Your task to perform on an android device: toggle priority inbox in the gmail app Image 0: 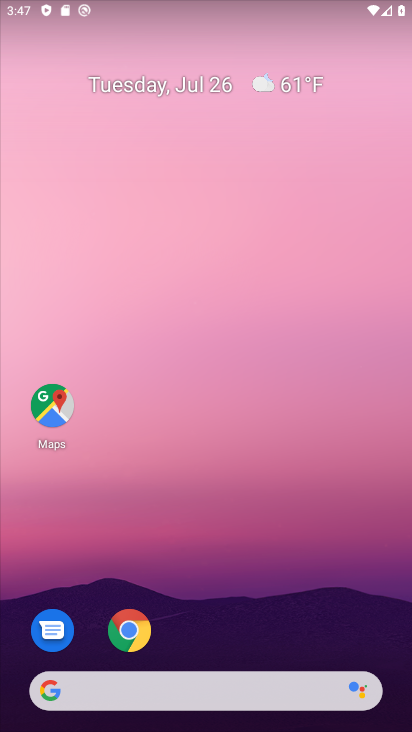
Step 0: click (246, 158)
Your task to perform on an android device: toggle priority inbox in the gmail app Image 1: 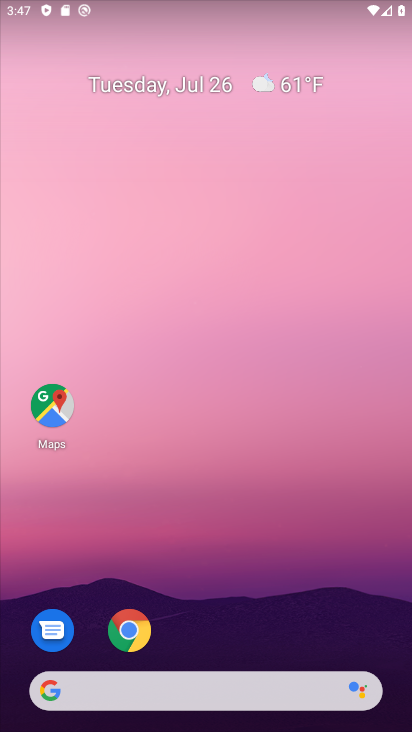
Step 1: drag from (213, 582) to (242, 31)
Your task to perform on an android device: toggle priority inbox in the gmail app Image 2: 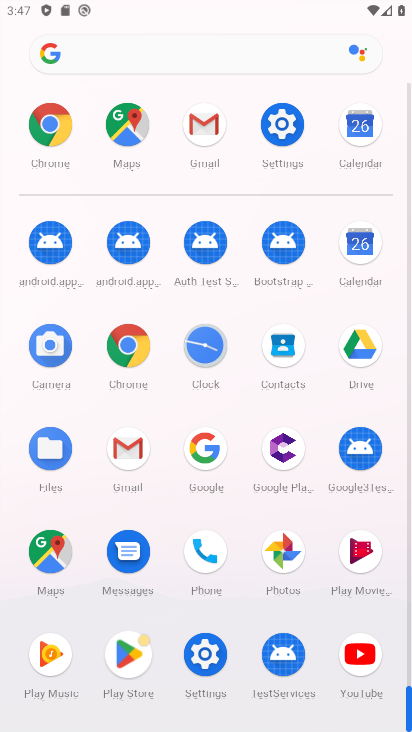
Step 2: drag from (151, 619) to (155, 163)
Your task to perform on an android device: toggle priority inbox in the gmail app Image 3: 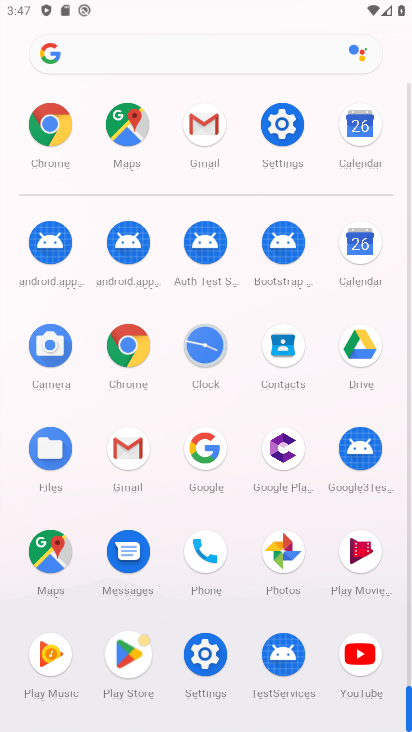
Step 3: click (115, 448)
Your task to perform on an android device: toggle priority inbox in the gmail app Image 4: 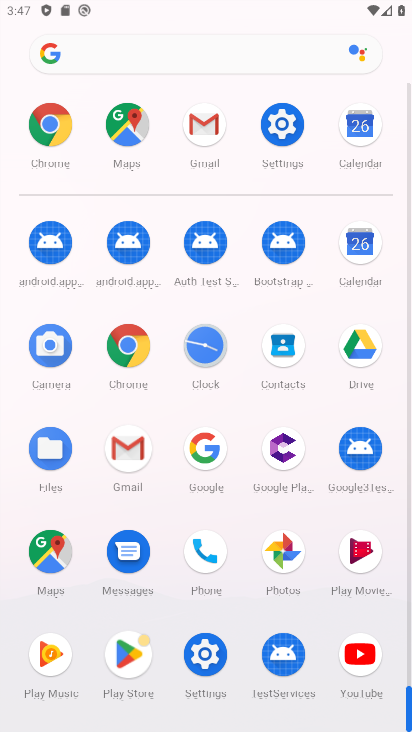
Step 4: click (114, 448)
Your task to perform on an android device: toggle priority inbox in the gmail app Image 5: 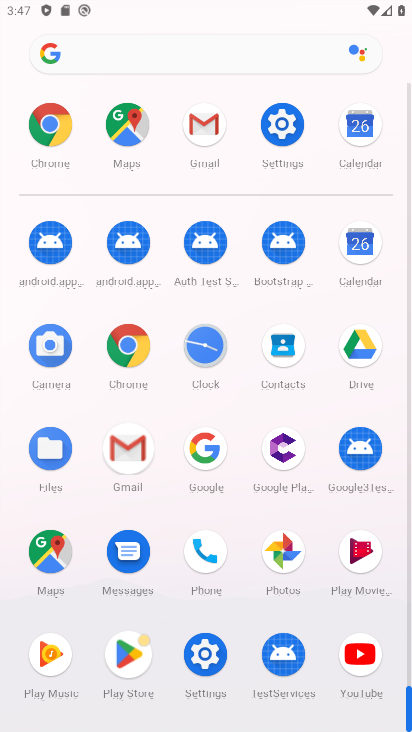
Step 5: click (120, 446)
Your task to perform on an android device: toggle priority inbox in the gmail app Image 6: 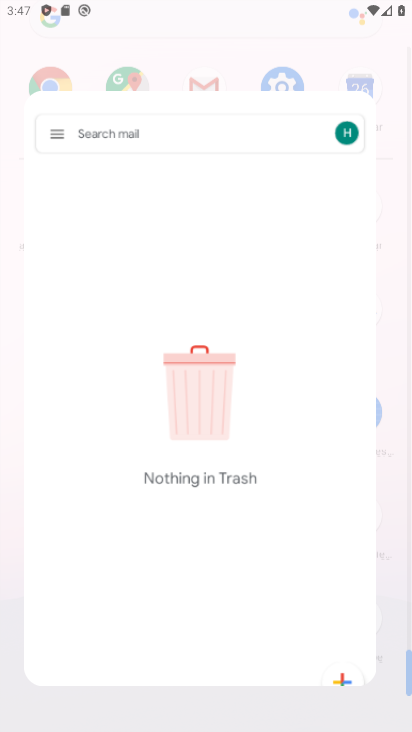
Step 6: click (132, 433)
Your task to perform on an android device: toggle priority inbox in the gmail app Image 7: 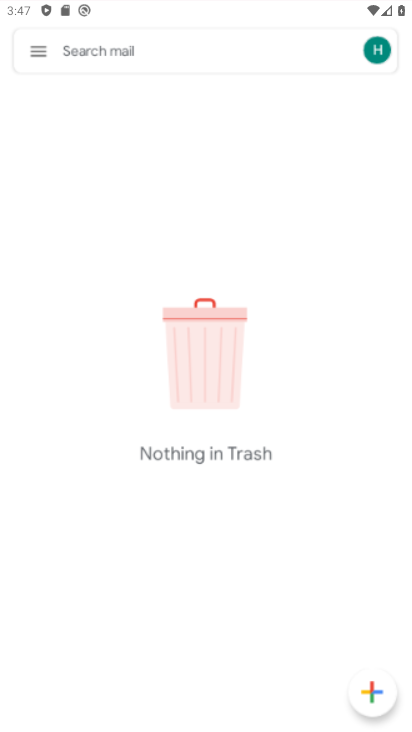
Step 7: click (132, 433)
Your task to perform on an android device: toggle priority inbox in the gmail app Image 8: 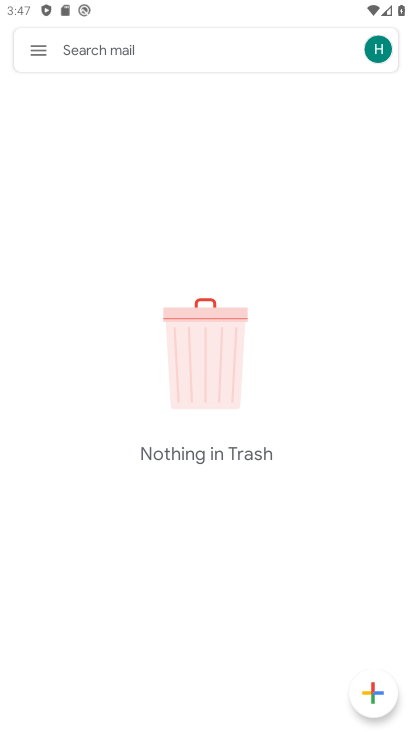
Step 8: click (131, 432)
Your task to perform on an android device: toggle priority inbox in the gmail app Image 9: 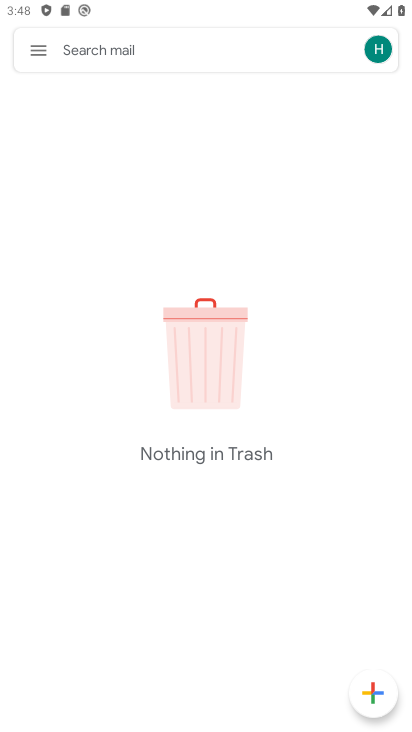
Step 9: click (39, 54)
Your task to perform on an android device: toggle priority inbox in the gmail app Image 10: 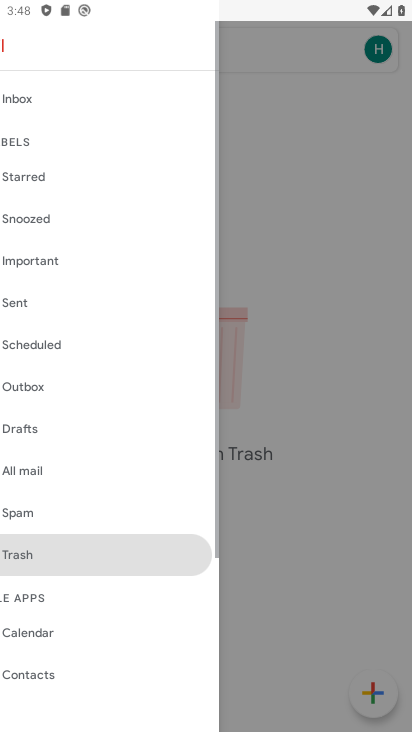
Step 10: click (38, 52)
Your task to perform on an android device: toggle priority inbox in the gmail app Image 11: 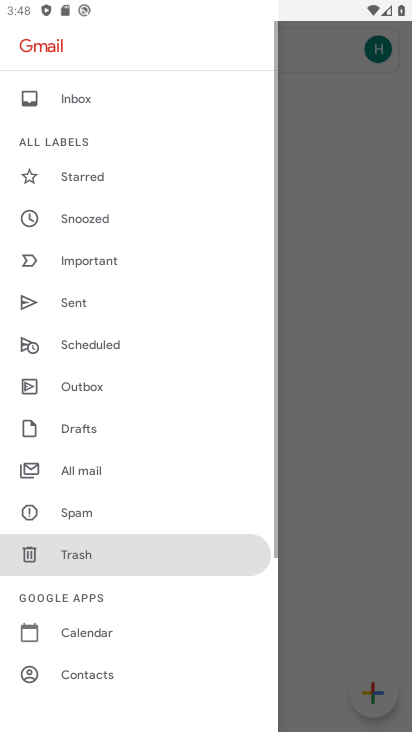
Step 11: click (38, 52)
Your task to perform on an android device: toggle priority inbox in the gmail app Image 12: 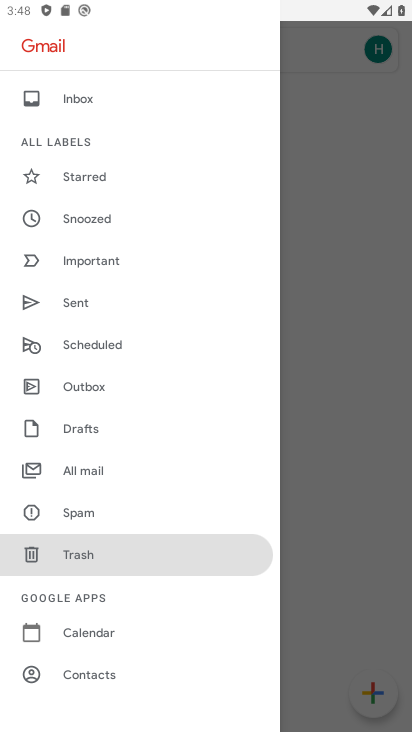
Step 12: click (86, 557)
Your task to perform on an android device: toggle priority inbox in the gmail app Image 13: 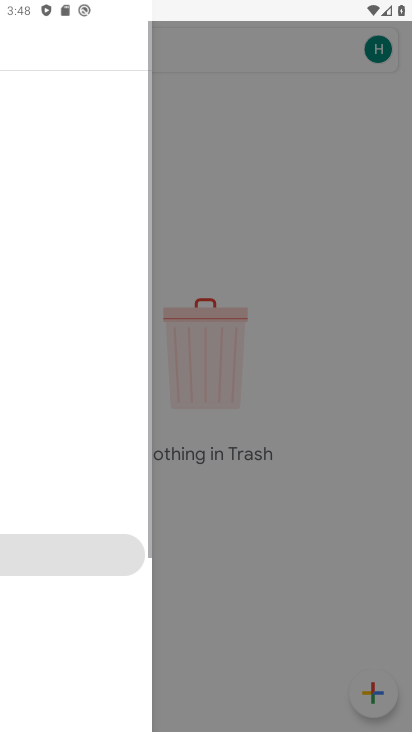
Step 13: click (85, 556)
Your task to perform on an android device: toggle priority inbox in the gmail app Image 14: 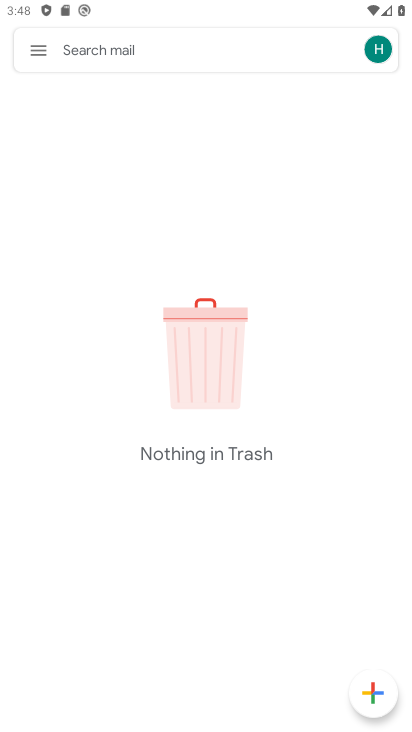
Step 14: click (85, 552)
Your task to perform on an android device: toggle priority inbox in the gmail app Image 15: 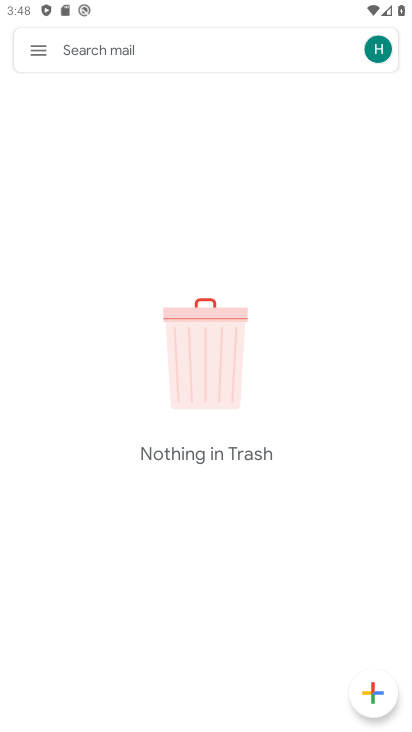
Step 15: click (90, 548)
Your task to perform on an android device: toggle priority inbox in the gmail app Image 16: 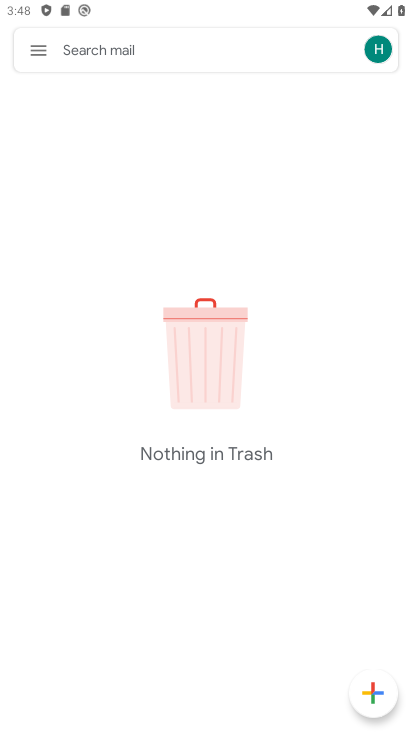
Step 16: click (36, 53)
Your task to perform on an android device: toggle priority inbox in the gmail app Image 17: 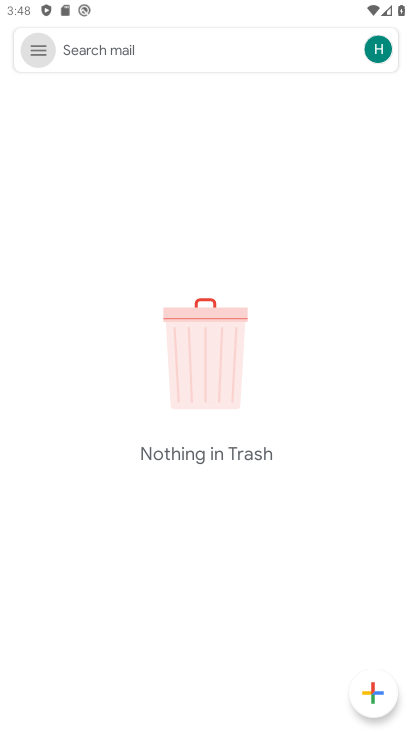
Step 17: click (34, 44)
Your task to perform on an android device: toggle priority inbox in the gmail app Image 18: 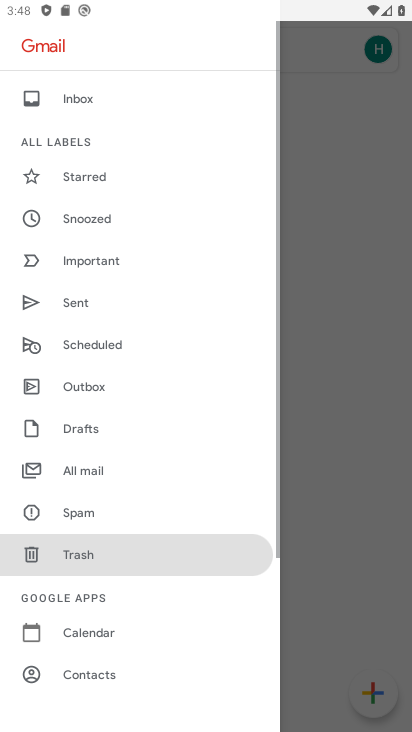
Step 18: drag from (94, 563) to (79, 145)
Your task to perform on an android device: toggle priority inbox in the gmail app Image 19: 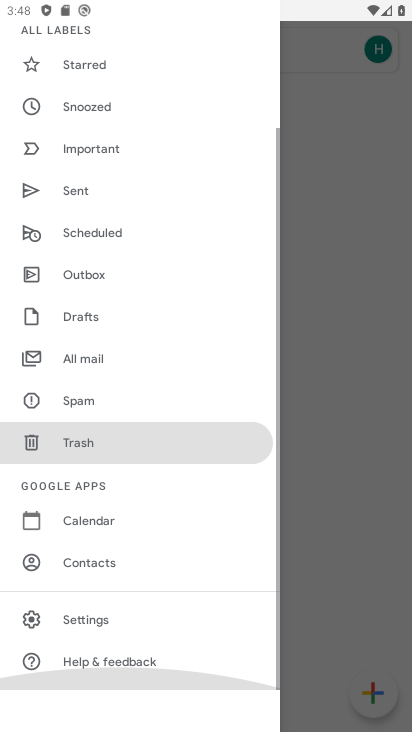
Step 19: drag from (64, 481) to (97, 97)
Your task to perform on an android device: toggle priority inbox in the gmail app Image 20: 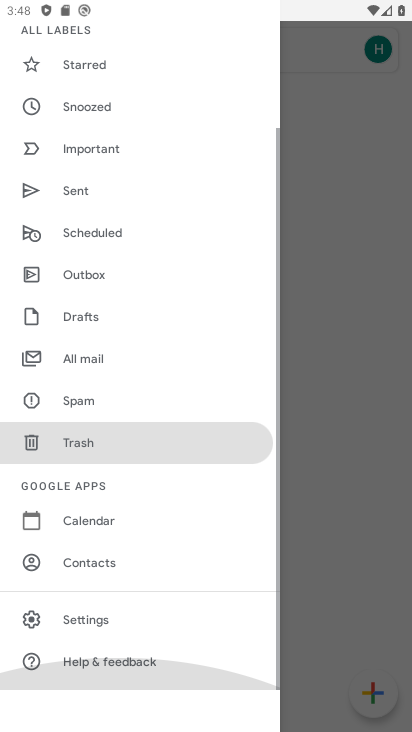
Step 20: drag from (96, 427) to (67, 142)
Your task to perform on an android device: toggle priority inbox in the gmail app Image 21: 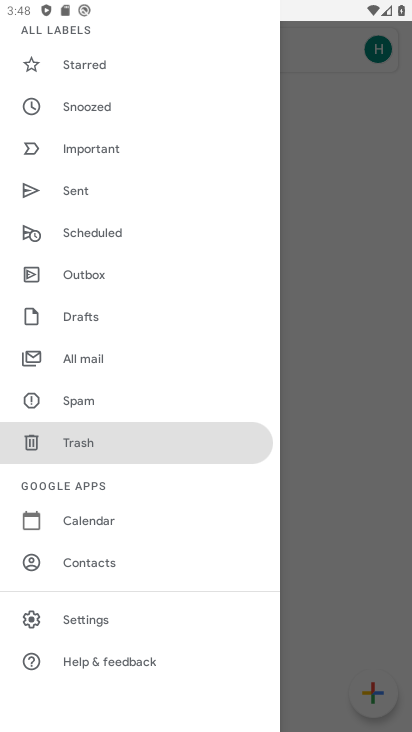
Step 21: click (81, 618)
Your task to perform on an android device: toggle priority inbox in the gmail app Image 22: 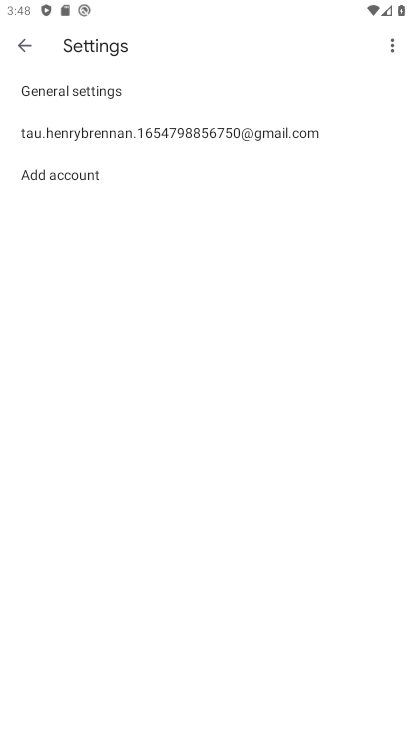
Step 22: click (71, 133)
Your task to perform on an android device: toggle priority inbox in the gmail app Image 23: 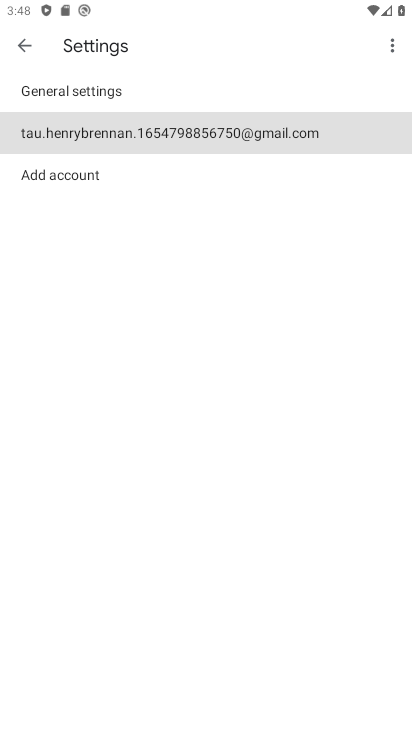
Step 23: click (72, 132)
Your task to perform on an android device: toggle priority inbox in the gmail app Image 24: 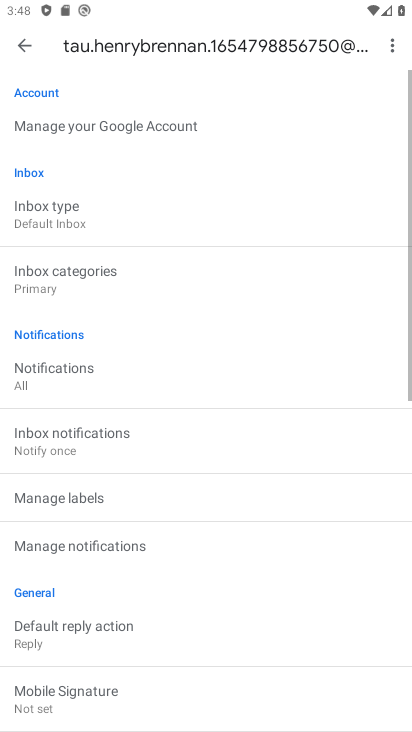
Step 24: click (72, 132)
Your task to perform on an android device: toggle priority inbox in the gmail app Image 25: 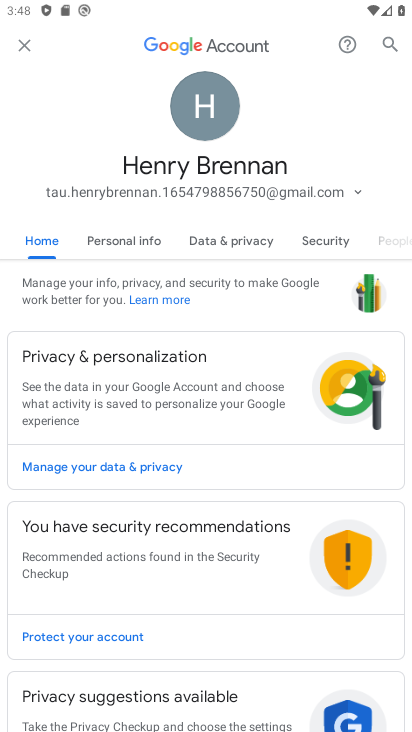
Step 25: click (20, 36)
Your task to perform on an android device: toggle priority inbox in the gmail app Image 26: 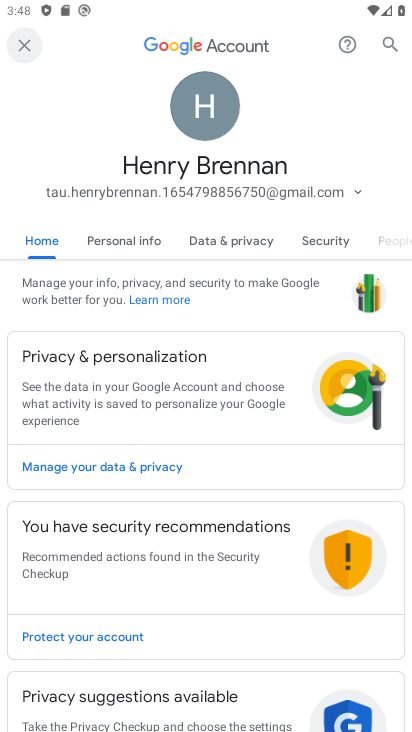
Step 26: click (23, 33)
Your task to perform on an android device: toggle priority inbox in the gmail app Image 27: 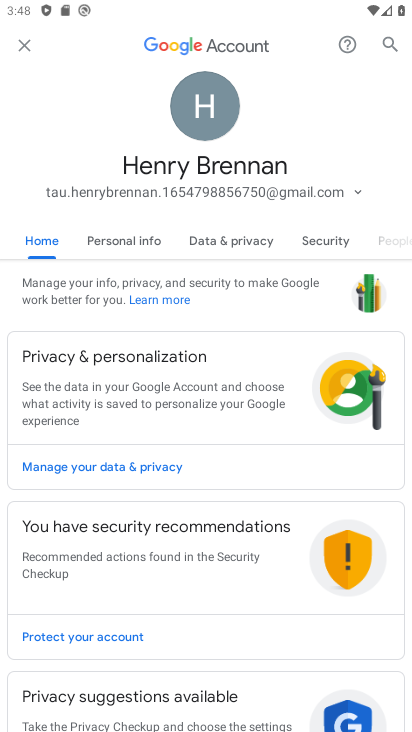
Step 27: click (27, 52)
Your task to perform on an android device: toggle priority inbox in the gmail app Image 28: 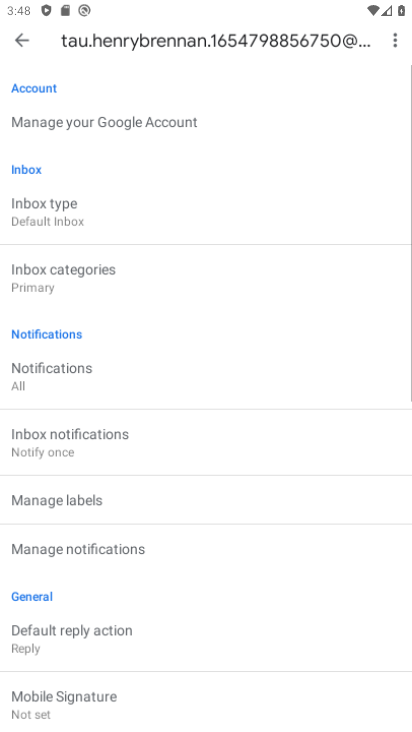
Step 28: click (22, 46)
Your task to perform on an android device: toggle priority inbox in the gmail app Image 29: 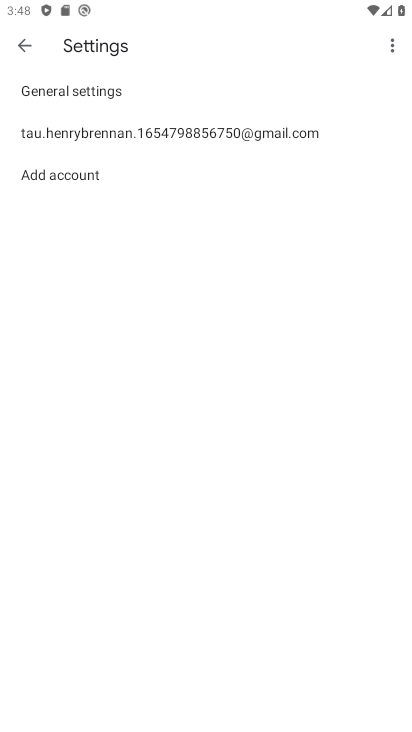
Step 29: click (21, 47)
Your task to perform on an android device: toggle priority inbox in the gmail app Image 30: 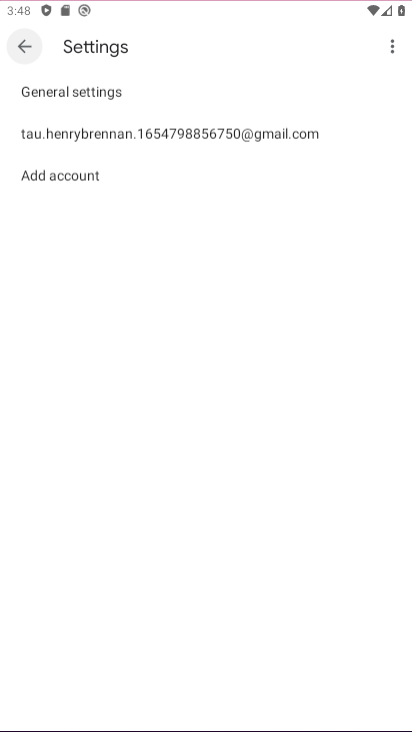
Step 30: click (21, 46)
Your task to perform on an android device: toggle priority inbox in the gmail app Image 31: 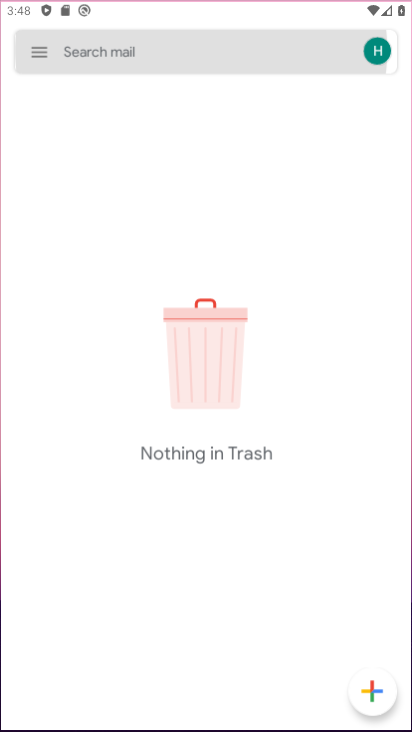
Step 31: click (21, 47)
Your task to perform on an android device: toggle priority inbox in the gmail app Image 32: 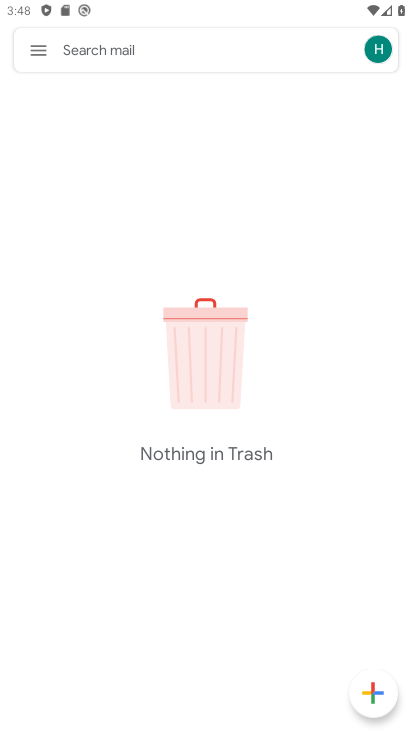
Step 32: press back button
Your task to perform on an android device: toggle priority inbox in the gmail app Image 33: 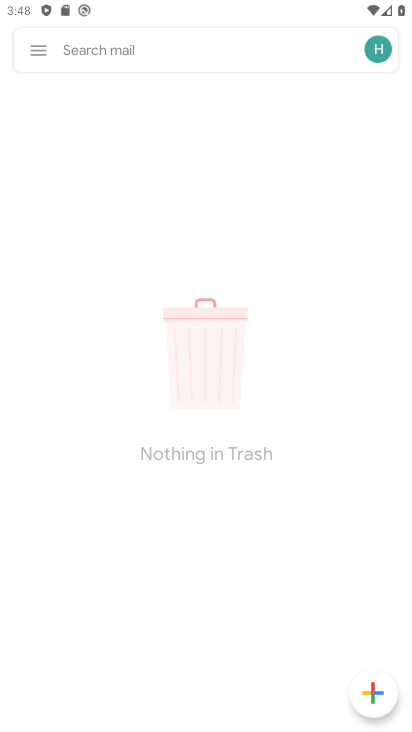
Step 33: press back button
Your task to perform on an android device: toggle priority inbox in the gmail app Image 34: 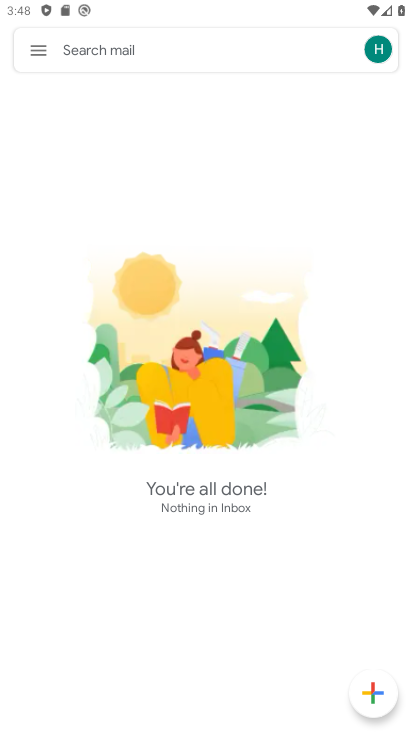
Step 34: press back button
Your task to perform on an android device: toggle priority inbox in the gmail app Image 35: 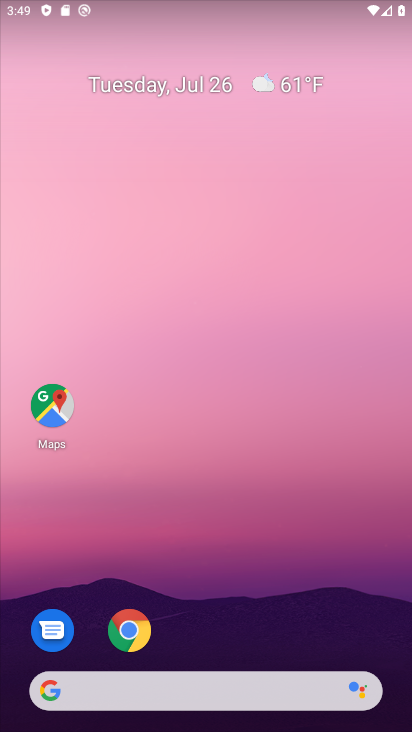
Step 35: drag from (274, 684) to (234, 35)
Your task to perform on an android device: toggle priority inbox in the gmail app Image 36: 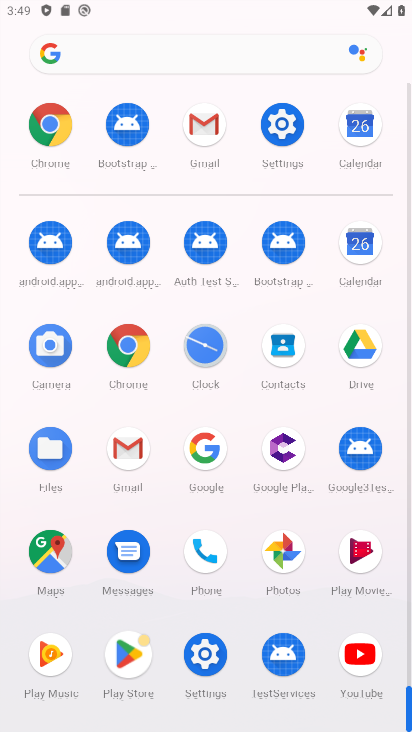
Step 36: drag from (241, 423) to (262, 49)
Your task to perform on an android device: toggle priority inbox in the gmail app Image 37: 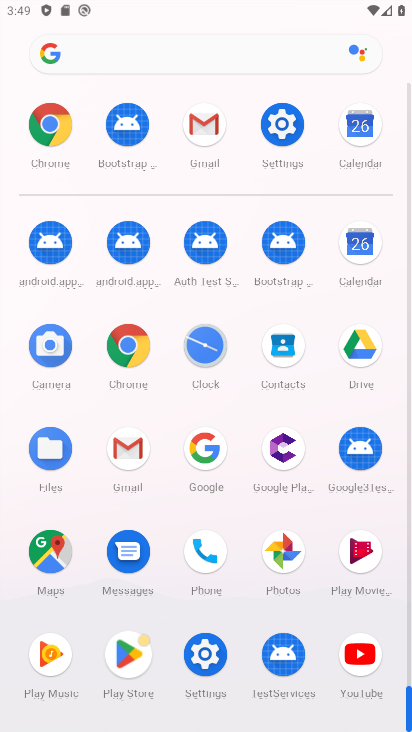
Step 37: click (107, 443)
Your task to perform on an android device: toggle priority inbox in the gmail app Image 38: 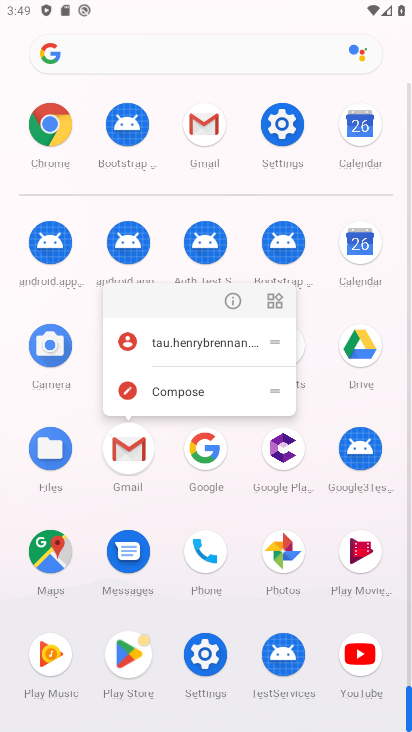
Step 38: click (124, 449)
Your task to perform on an android device: toggle priority inbox in the gmail app Image 39: 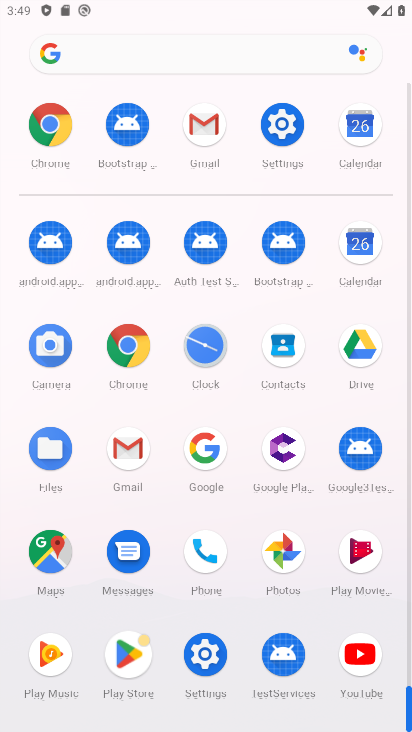
Step 39: click (125, 449)
Your task to perform on an android device: toggle priority inbox in the gmail app Image 40: 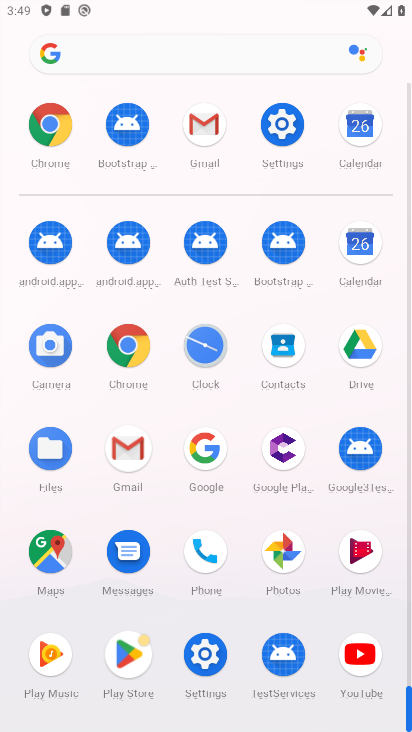
Step 40: click (125, 449)
Your task to perform on an android device: toggle priority inbox in the gmail app Image 41: 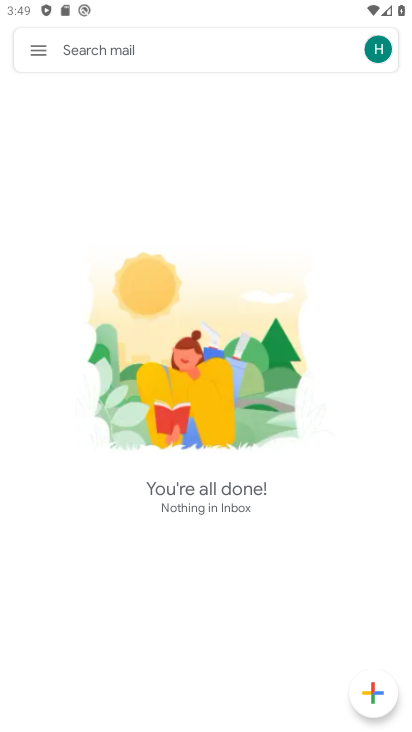
Step 41: click (39, 57)
Your task to perform on an android device: toggle priority inbox in the gmail app Image 42: 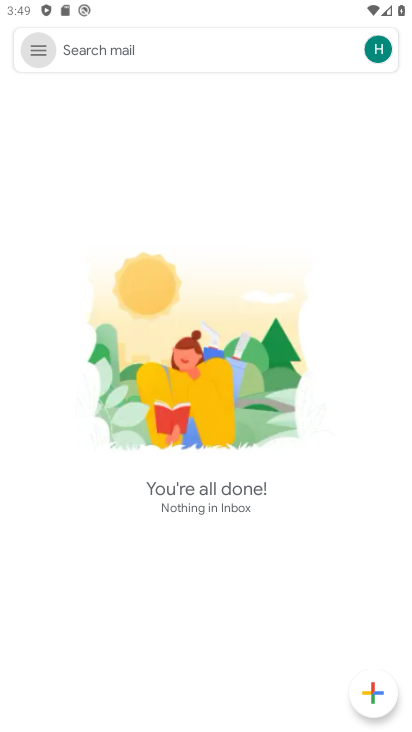
Step 42: click (40, 56)
Your task to perform on an android device: toggle priority inbox in the gmail app Image 43: 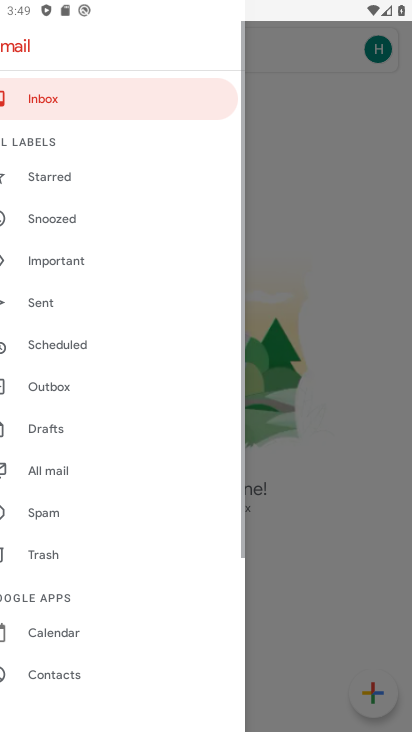
Step 43: click (41, 57)
Your task to perform on an android device: toggle priority inbox in the gmail app Image 44: 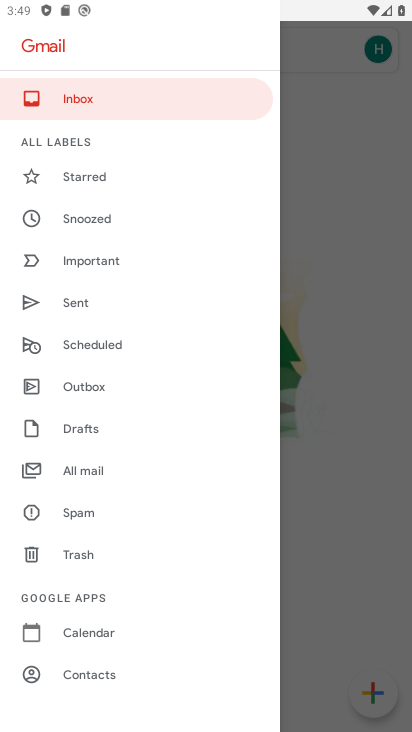
Step 44: drag from (124, 495) to (116, 142)
Your task to perform on an android device: toggle priority inbox in the gmail app Image 45: 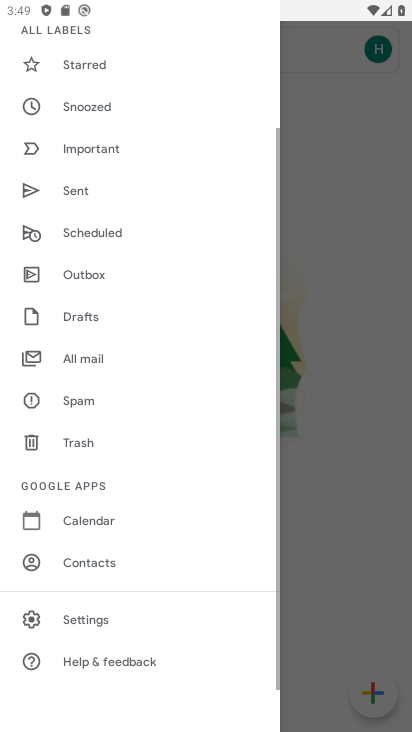
Step 45: drag from (88, 532) to (72, 231)
Your task to perform on an android device: toggle priority inbox in the gmail app Image 46: 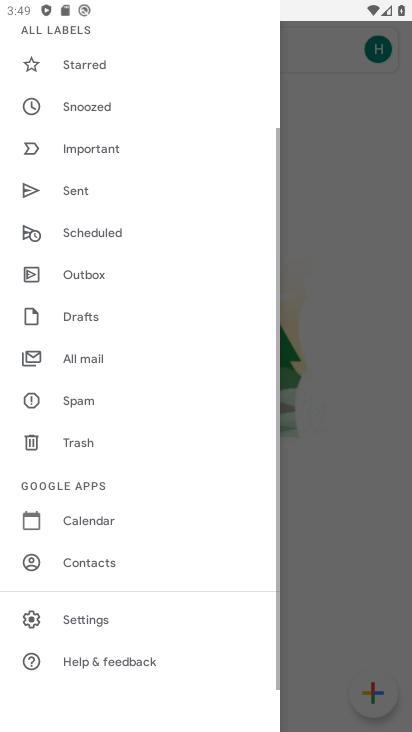
Step 46: click (83, 619)
Your task to perform on an android device: toggle priority inbox in the gmail app Image 47: 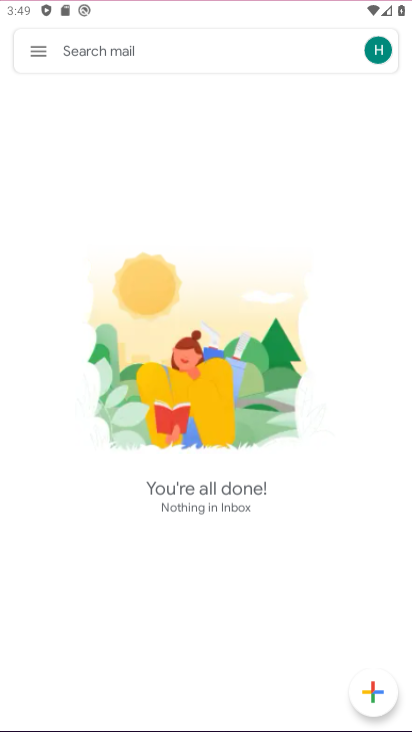
Step 47: click (85, 617)
Your task to perform on an android device: toggle priority inbox in the gmail app Image 48: 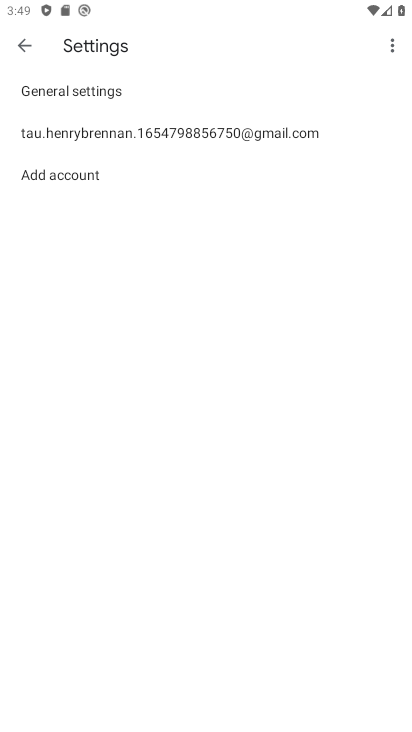
Step 48: click (93, 127)
Your task to perform on an android device: toggle priority inbox in the gmail app Image 49: 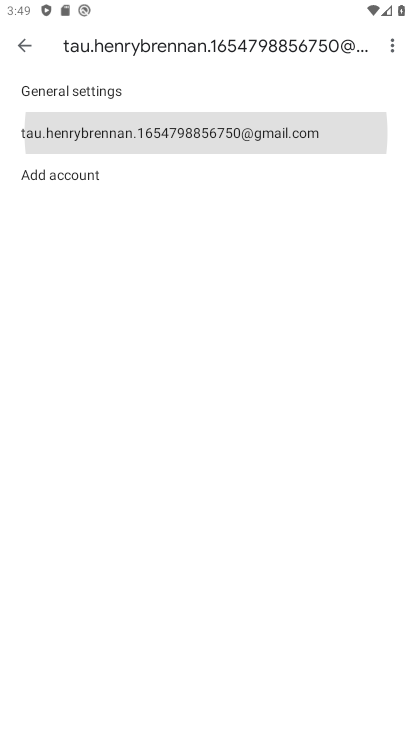
Step 49: click (95, 128)
Your task to perform on an android device: toggle priority inbox in the gmail app Image 50: 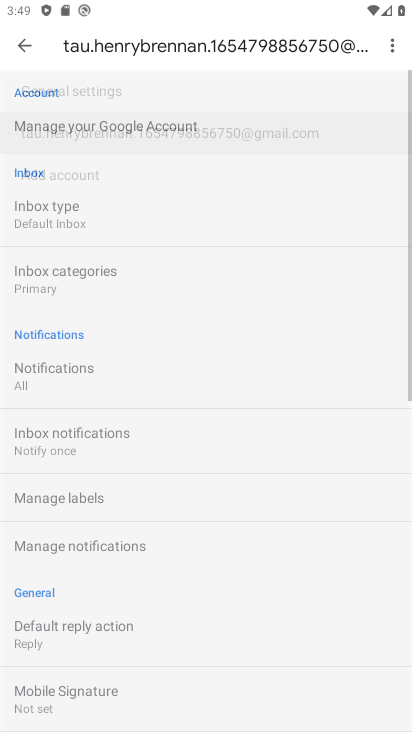
Step 50: click (95, 128)
Your task to perform on an android device: toggle priority inbox in the gmail app Image 51: 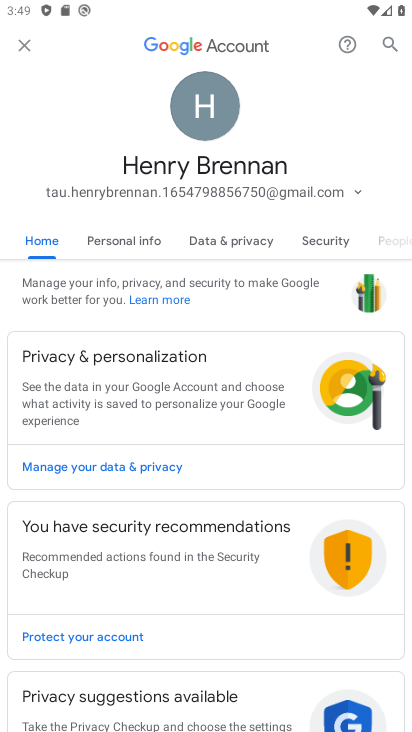
Step 51: click (24, 44)
Your task to perform on an android device: toggle priority inbox in the gmail app Image 52: 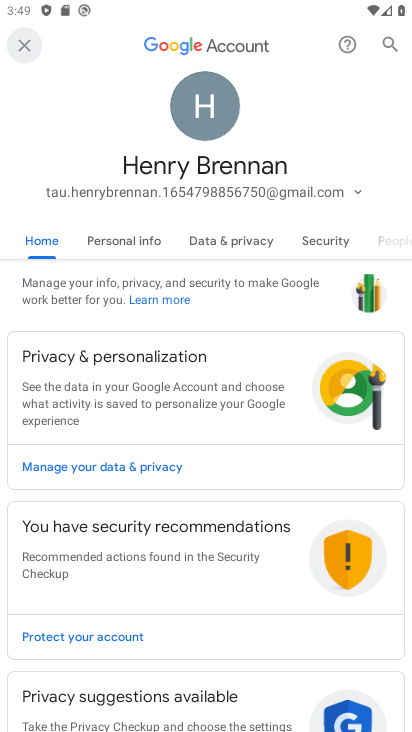
Step 52: click (23, 45)
Your task to perform on an android device: toggle priority inbox in the gmail app Image 53: 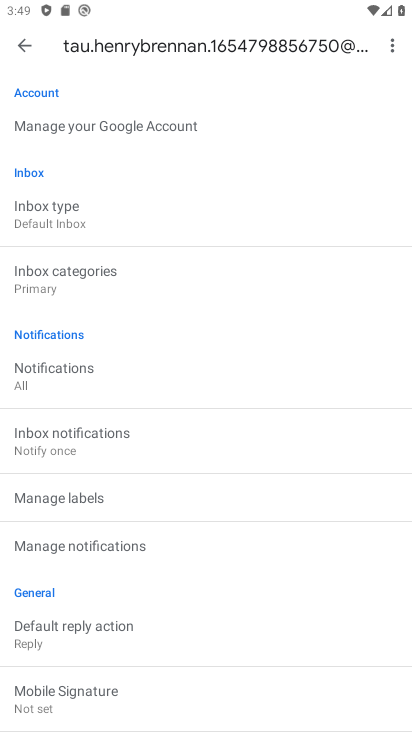
Step 53: click (65, 272)
Your task to perform on an android device: toggle priority inbox in the gmail app Image 54: 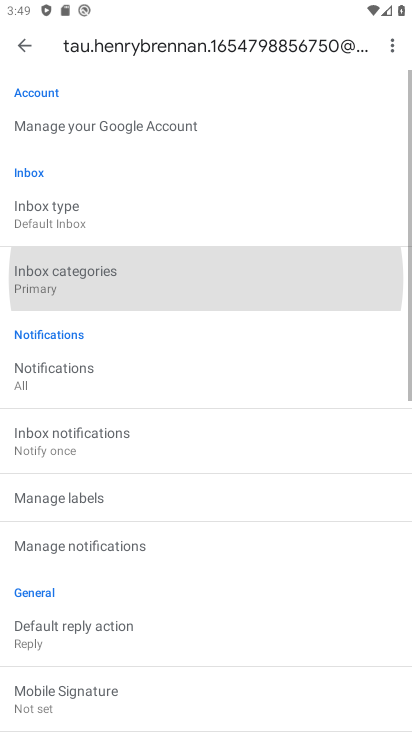
Step 54: click (61, 274)
Your task to perform on an android device: toggle priority inbox in the gmail app Image 55: 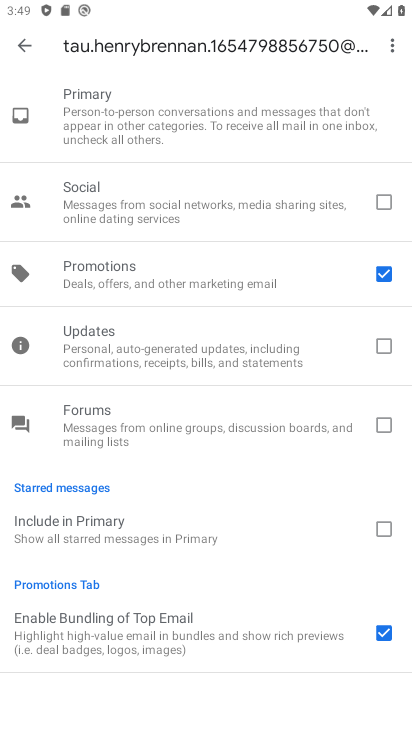
Step 55: click (17, 46)
Your task to perform on an android device: toggle priority inbox in the gmail app Image 56: 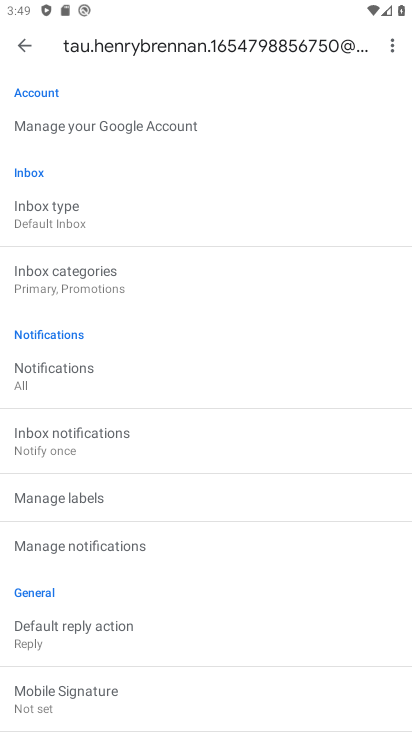
Step 56: click (61, 283)
Your task to perform on an android device: toggle priority inbox in the gmail app Image 57: 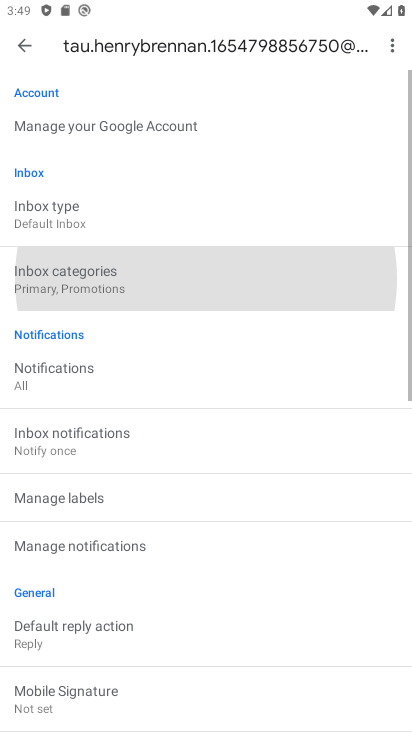
Step 57: click (62, 279)
Your task to perform on an android device: toggle priority inbox in the gmail app Image 58: 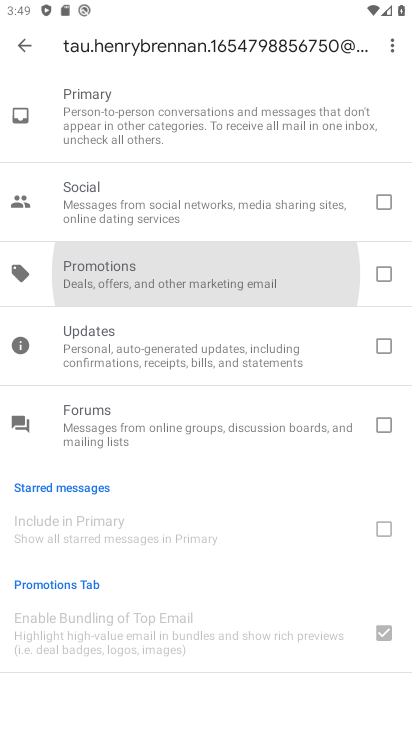
Step 58: click (62, 279)
Your task to perform on an android device: toggle priority inbox in the gmail app Image 59: 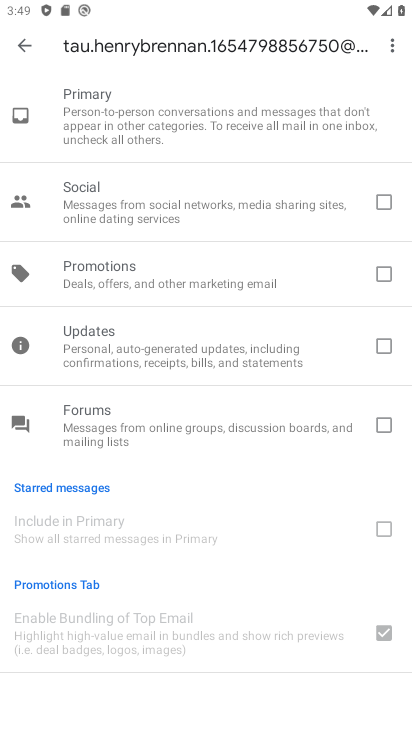
Step 59: click (14, 43)
Your task to perform on an android device: toggle priority inbox in the gmail app Image 60: 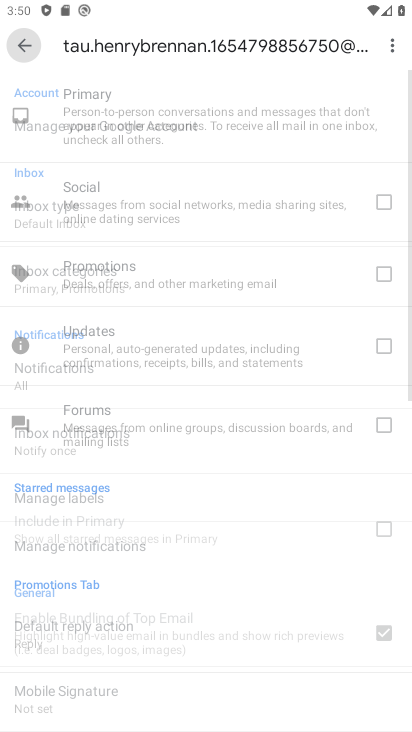
Step 60: click (13, 42)
Your task to perform on an android device: toggle priority inbox in the gmail app Image 61: 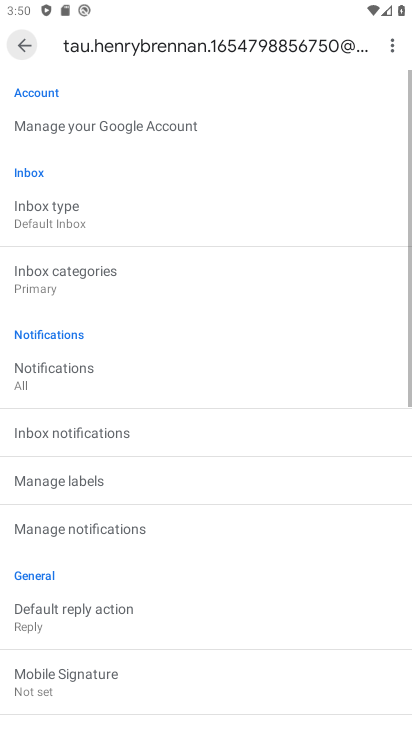
Step 61: click (12, 41)
Your task to perform on an android device: toggle priority inbox in the gmail app Image 62: 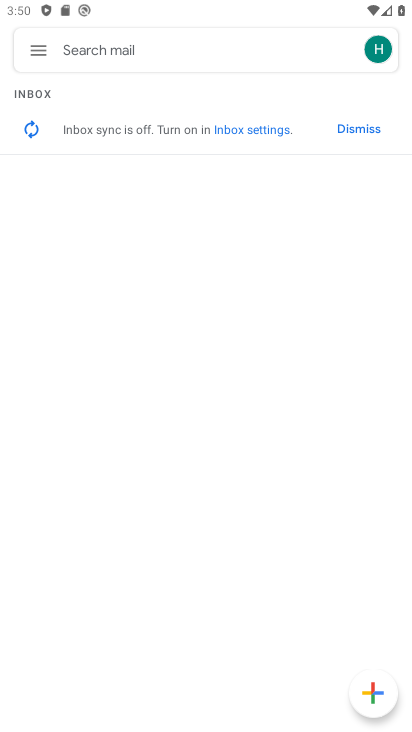
Step 62: task complete